Your task to perform on an android device: Go to battery settings Image 0: 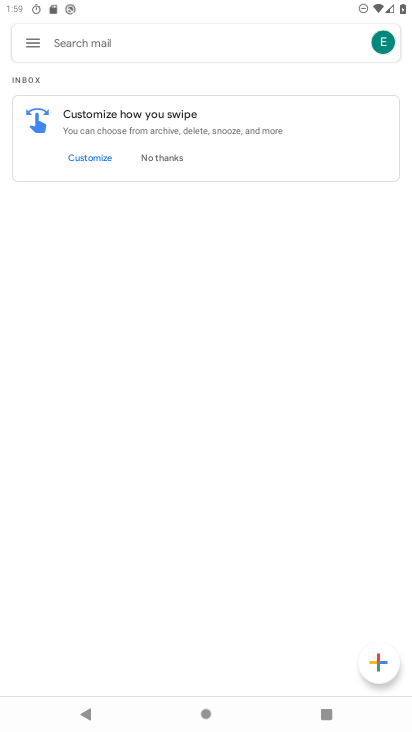
Step 0: press home button
Your task to perform on an android device: Go to battery settings Image 1: 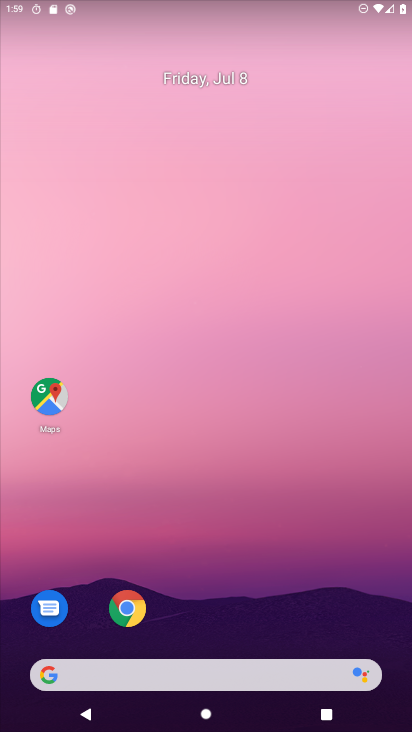
Step 1: drag from (241, 725) to (271, 9)
Your task to perform on an android device: Go to battery settings Image 2: 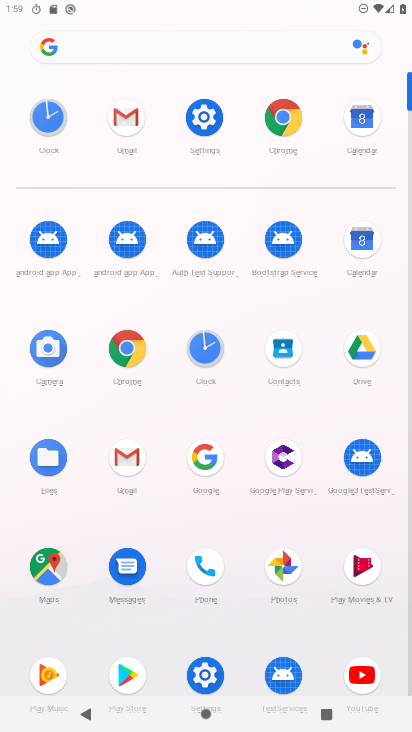
Step 2: click (200, 117)
Your task to perform on an android device: Go to battery settings Image 3: 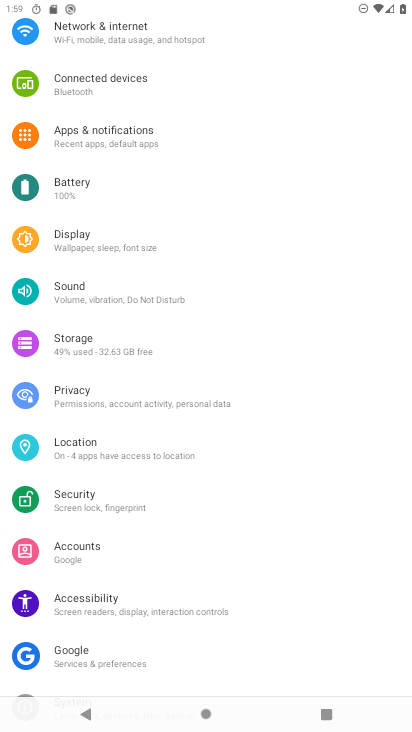
Step 3: click (61, 184)
Your task to perform on an android device: Go to battery settings Image 4: 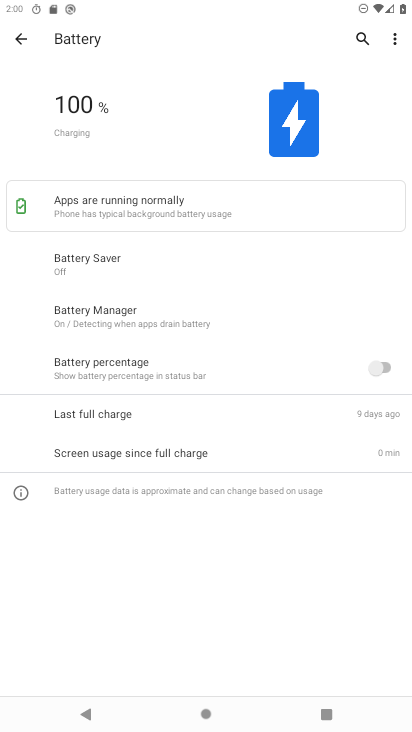
Step 4: task complete